Your task to perform on an android device: Add usb-a to usb-b to the cart on bestbuy Image 0: 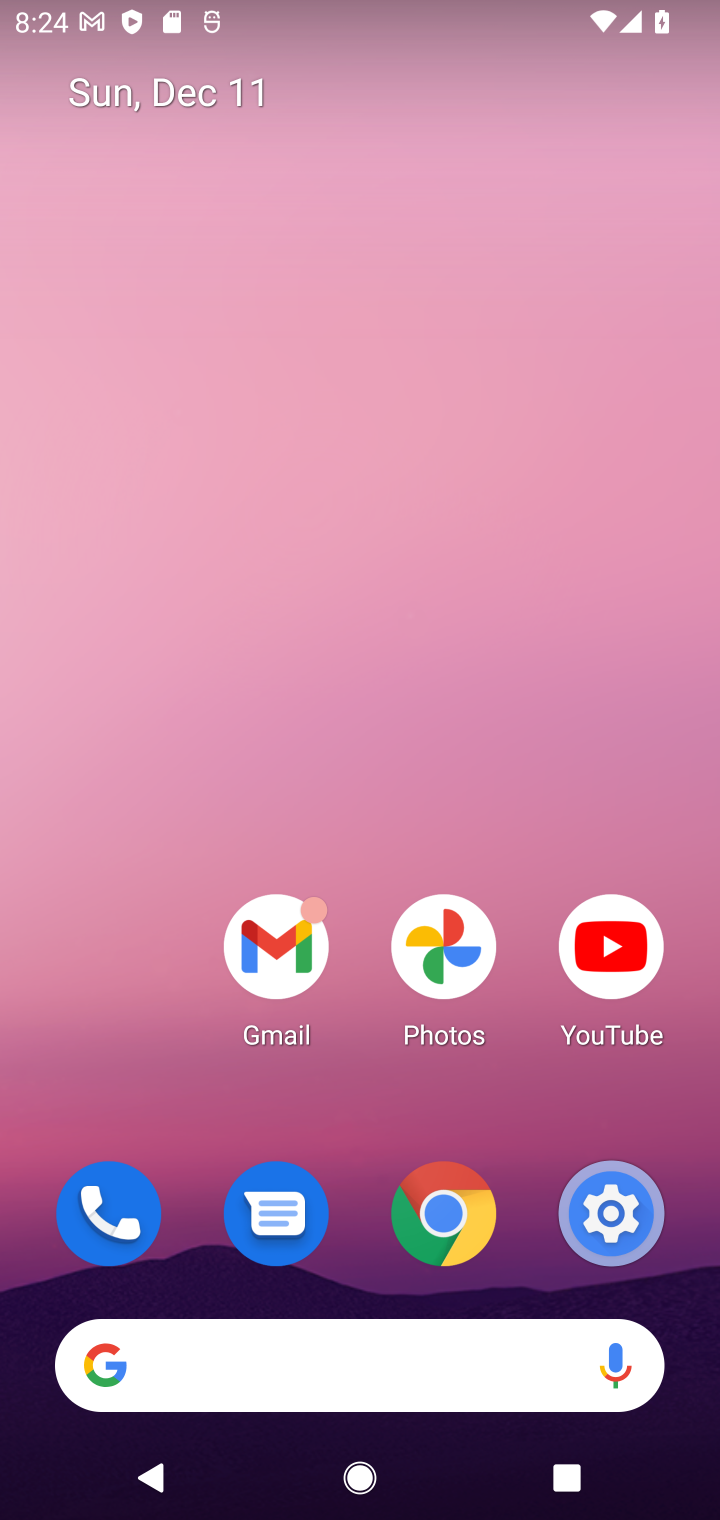
Step 0: click (256, 1359)
Your task to perform on an android device: Add usb-a to usb-b to the cart on bestbuy Image 1: 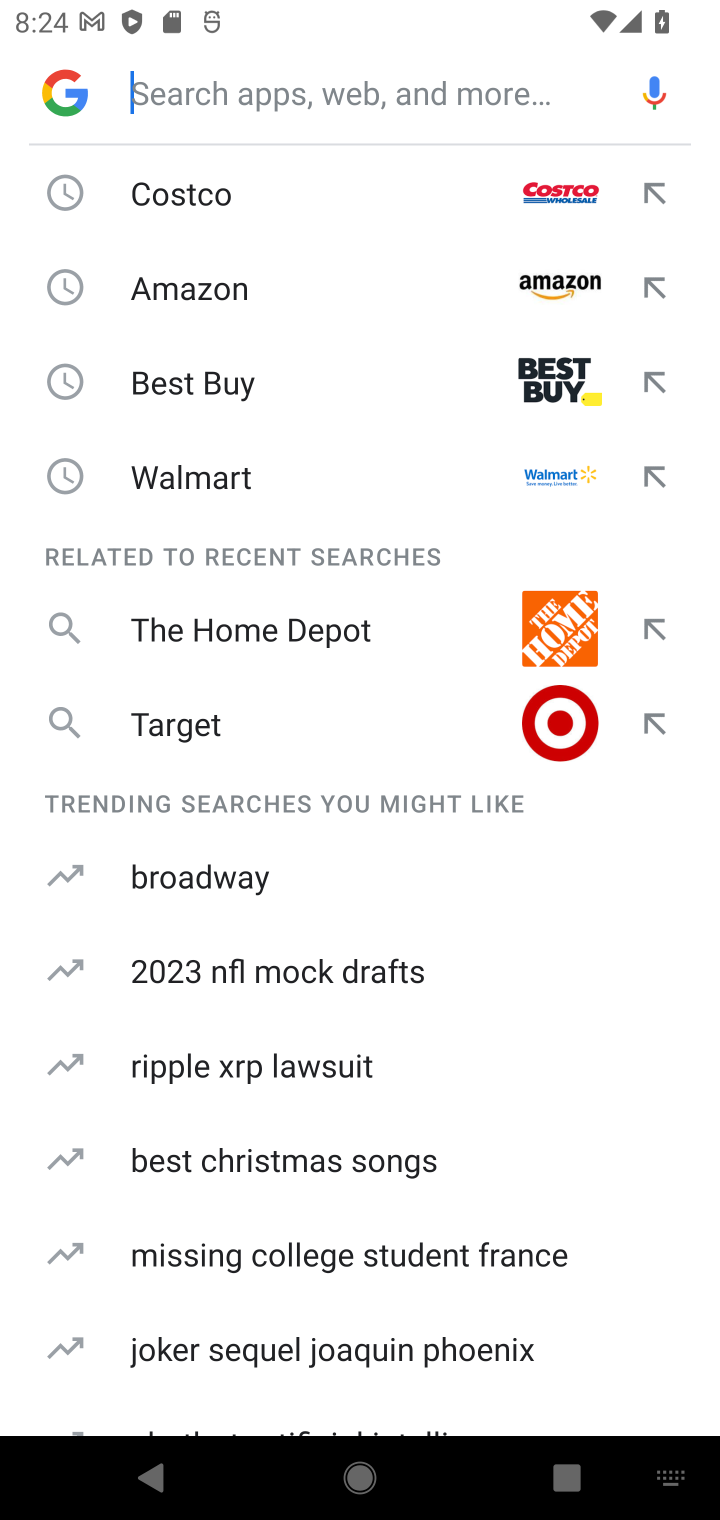
Step 1: type "bestbuy"
Your task to perform on an android device: Add usb-a to usb-b to the cart on bestbuy Image 2: 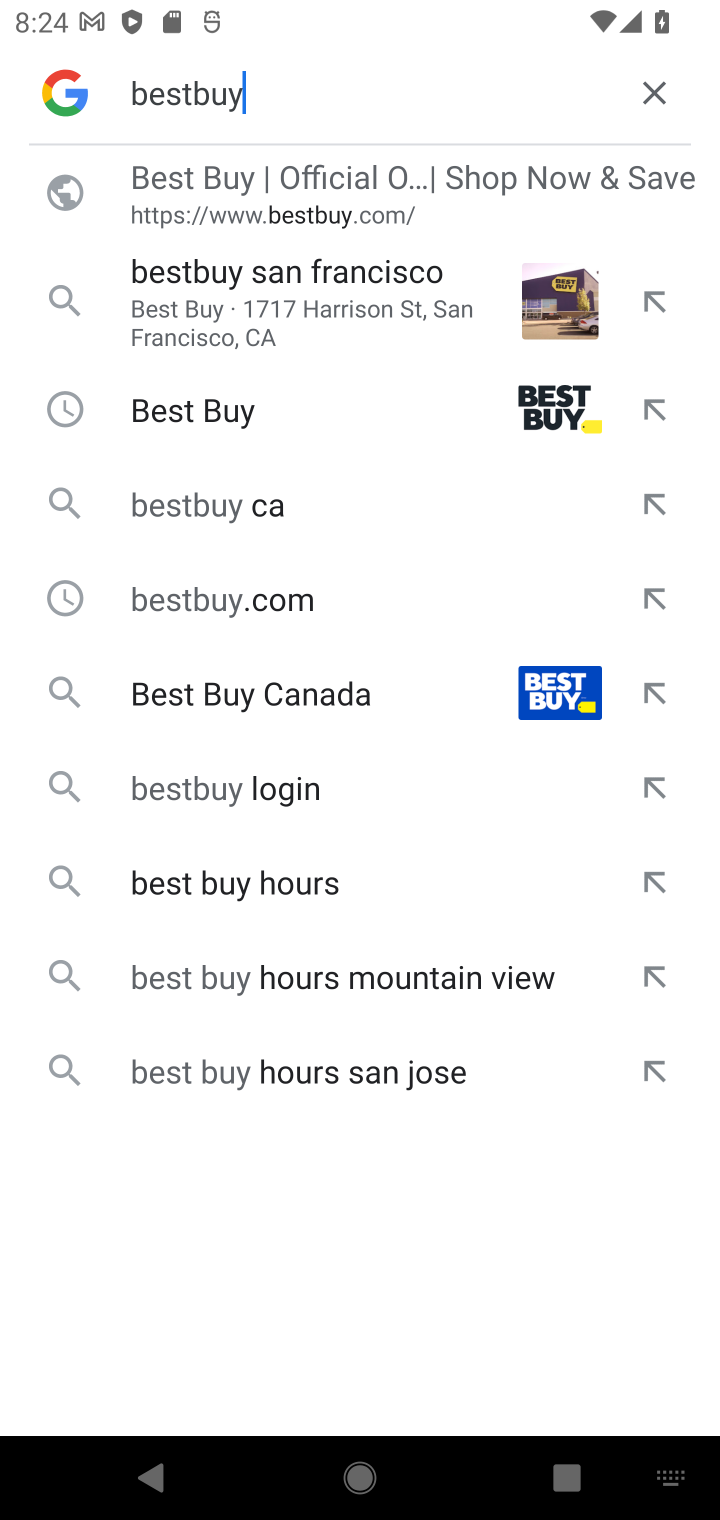
Step 2: click (277, 218)
Your task to perform on an android device: Add usb-a to usb-b to the cart on bestbuy Image 3: 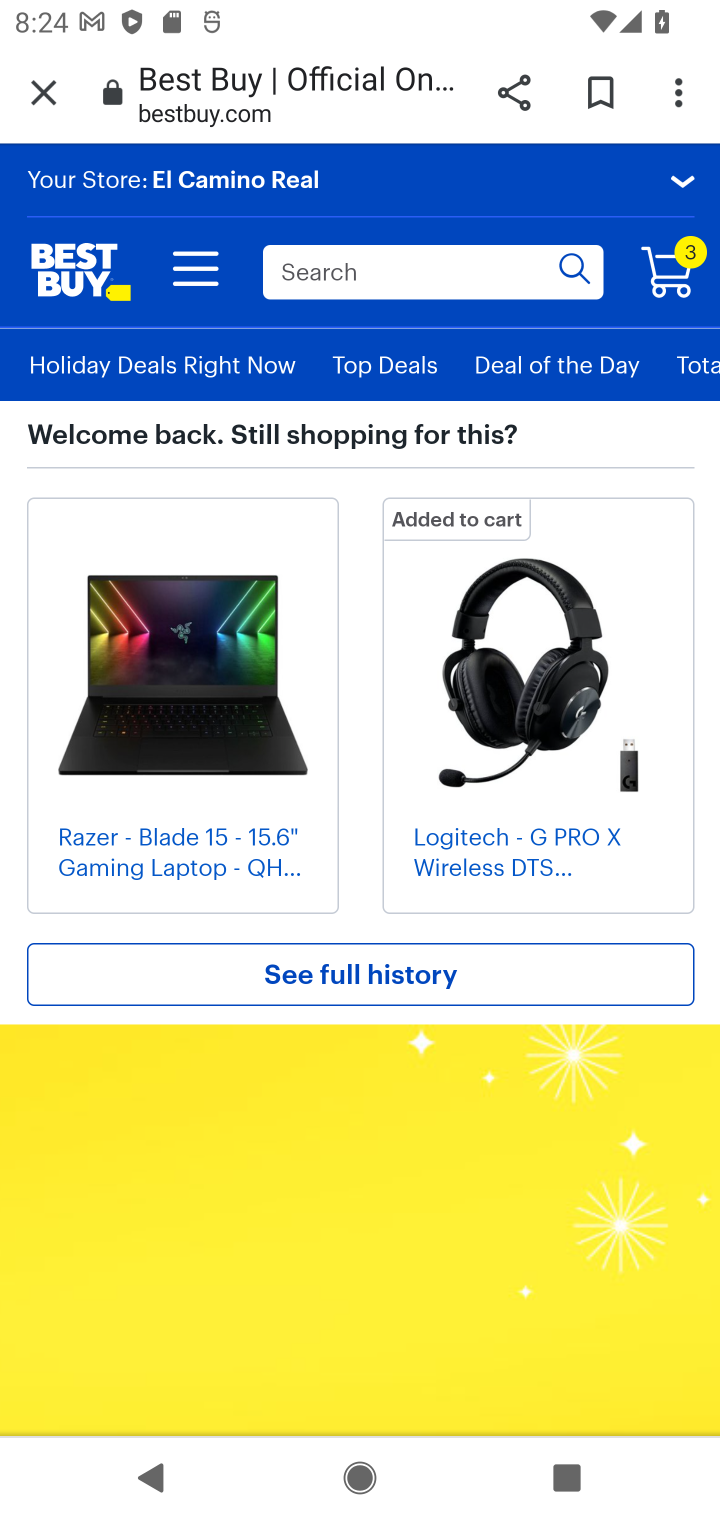
Step 3: task complete